Your task to perform on an android device: Open maps Image 0: 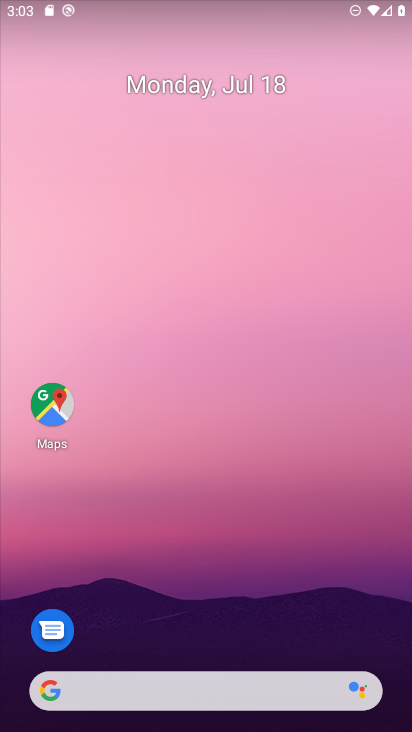
Step 0: drag from (256, 656) to (351, 64)
Your task to perform on an android device: Open maps Image 1: 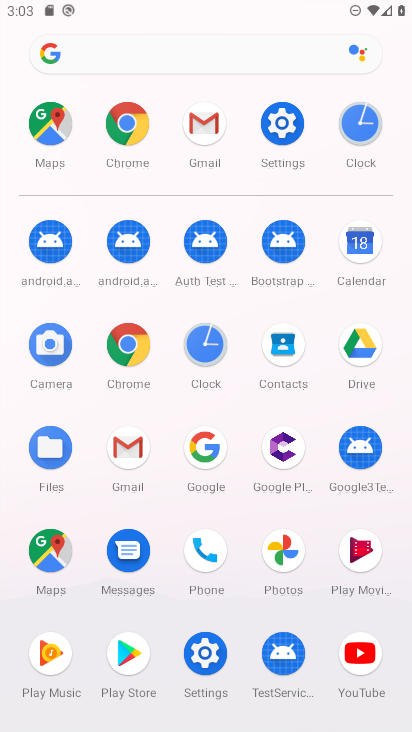
Step 1: click (47, 555)
Your task to perform on an android device: Open maps Image 2: 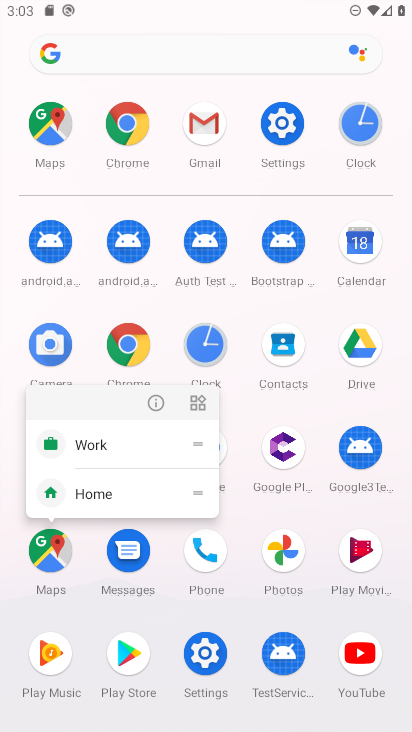
Step 2: click (37, 550)
Your task to perform on an android device: Open maps Image 3: 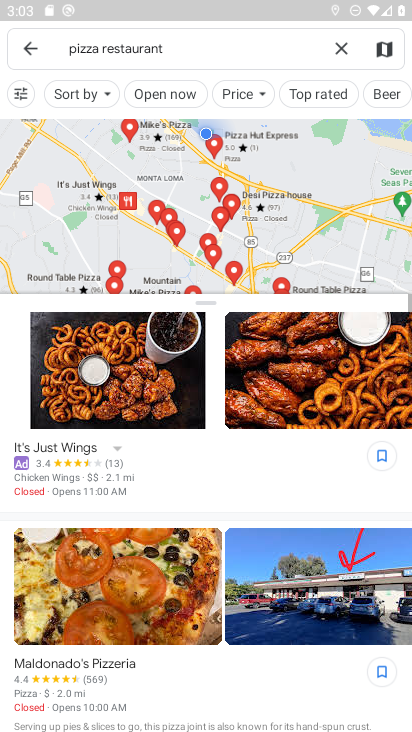
Step 3: task complete